Your task to perform on an android device: Open Android settings Image 0: 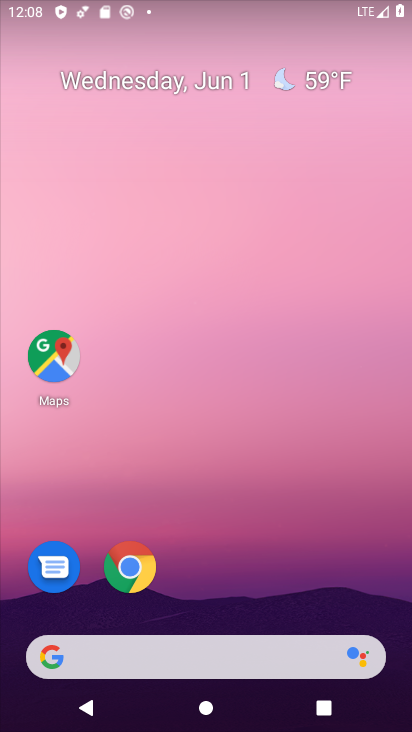
Step 0: drag from (221, 605) to (206, 108)
Your task to perform on an android device: Open Android settings Image 1: 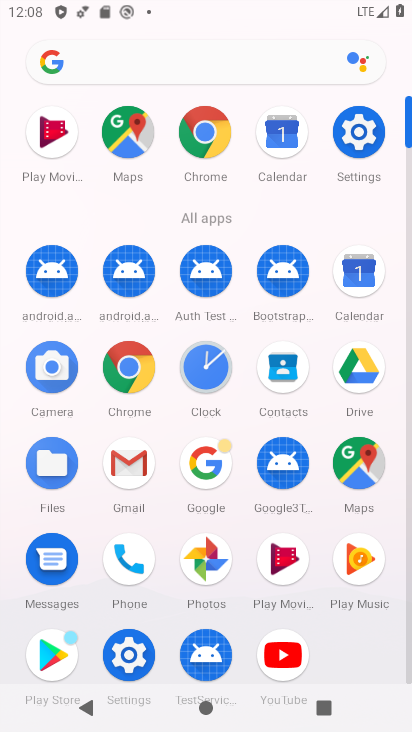
Step 1: click (371, 145)
Your task to perform on an android device: Open Android settings Image 2: 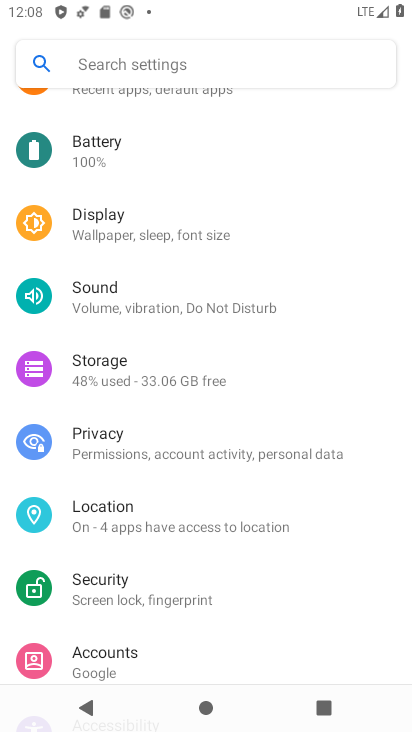
Step 2: task complete